Your task to perform on an android device: see sites visited before in the chrome app Image 0: 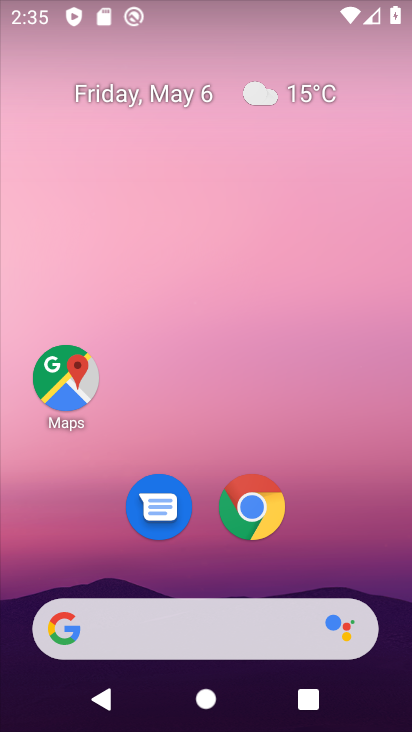
Step 0: drag from (344, 546) to (326, 156)
Your task to perform on an android device: see sites visited before in the chrome app Image 1: 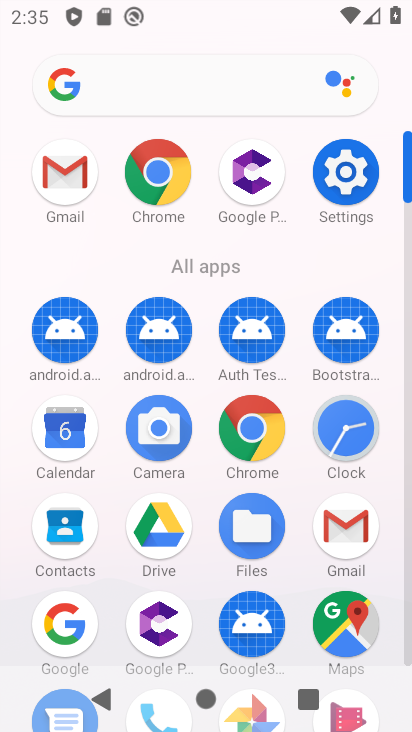
Step 1: click (144, 191)
Your task to perform on an android device: see sites visited before in the chrome app Image 2: 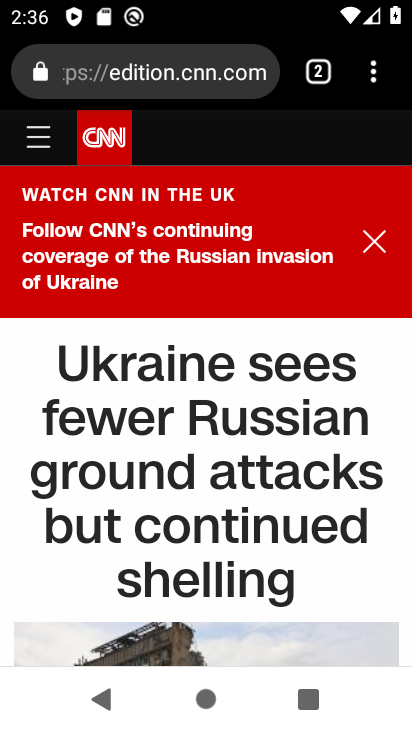
Step 2: click (7, 317)
Your task to perform on an android device: see sites visited before in the chrome app Image 3: 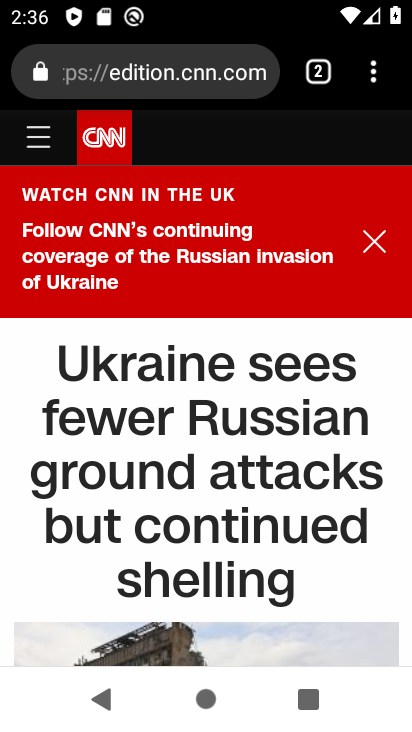
Step 3: task complete